Your task to perform on an android device: Go to ESPN.com Image 0: 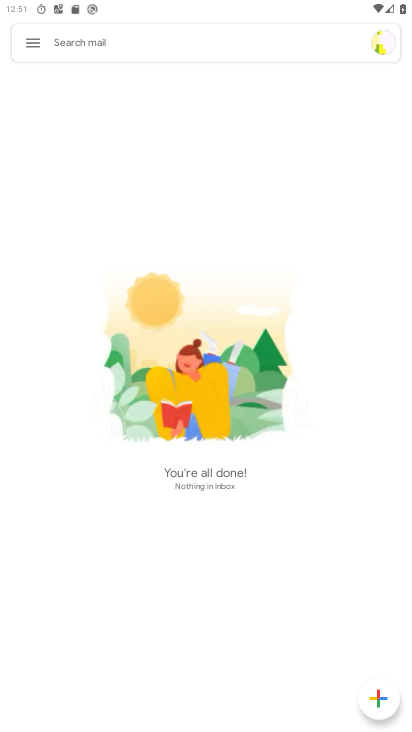
Step 0: press home button
Your task to perform on an android device: Go to ESPN.com Image 1: 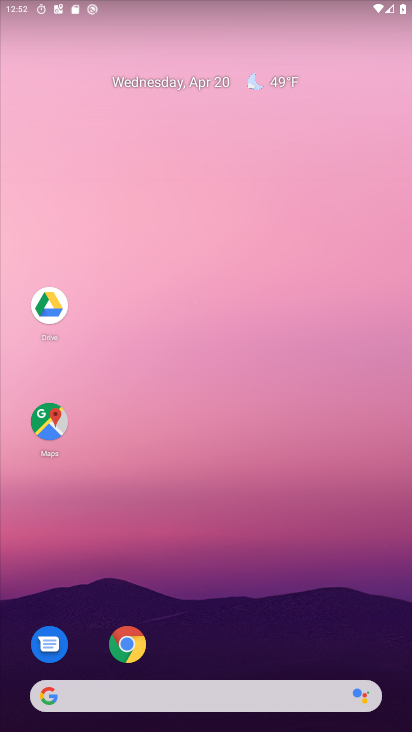
Step 1: click (130, 644)
Your task to perform on an android device: Go to ESPN.com Image 2: 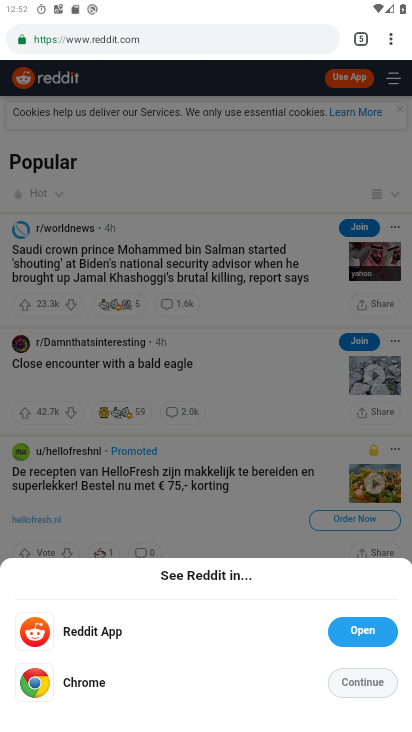
Step 2: click (357, 43)
Your task to perform on an android device: Go to ESPN.com Image 3: 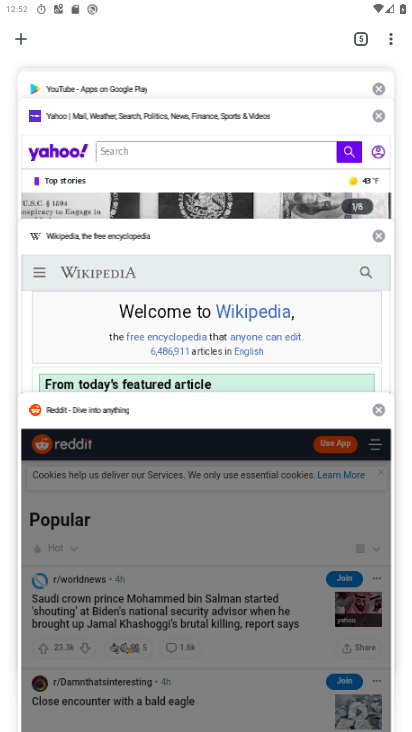
Step 3: click (28, 38)
Your task to perform on an android device: Go to ESPN.com Image 4: 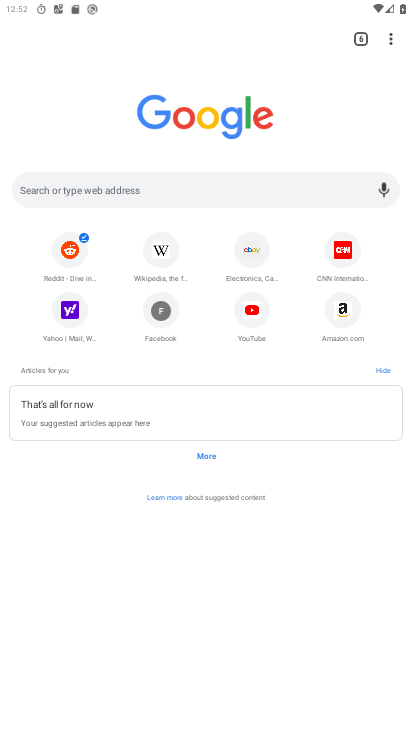
Step 4: click (149, 185)
Your task to perform on an android device: Go to ESPN.com Image 5: 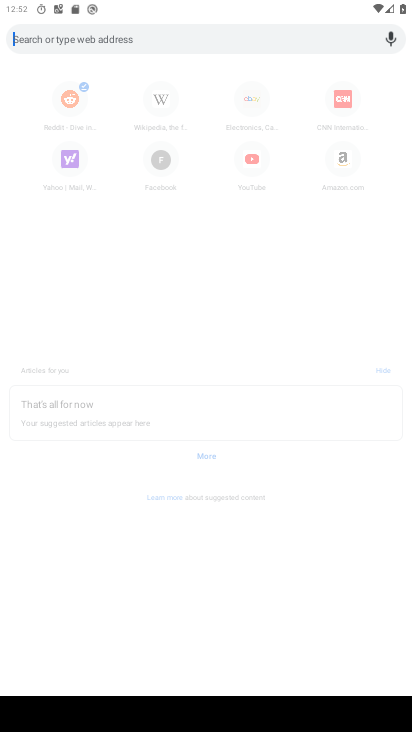
Step 5: type "ESPN.com"
Your task to perform on an android device: Go to ESPN.com Image 6: 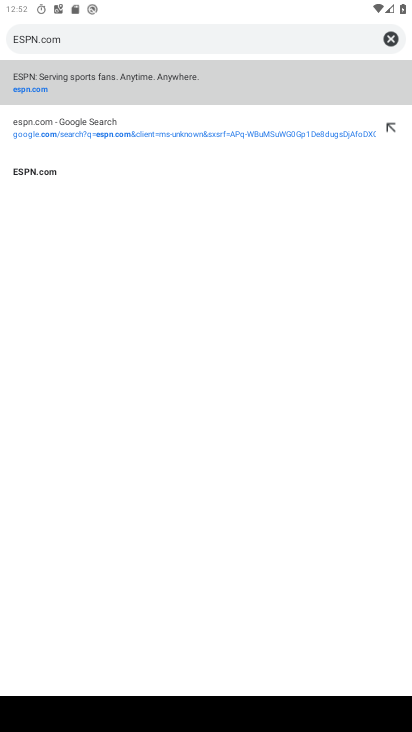
Step 6: click (49, 85)
Your task to perform on an android device: Go to ESPN.com Image 7: 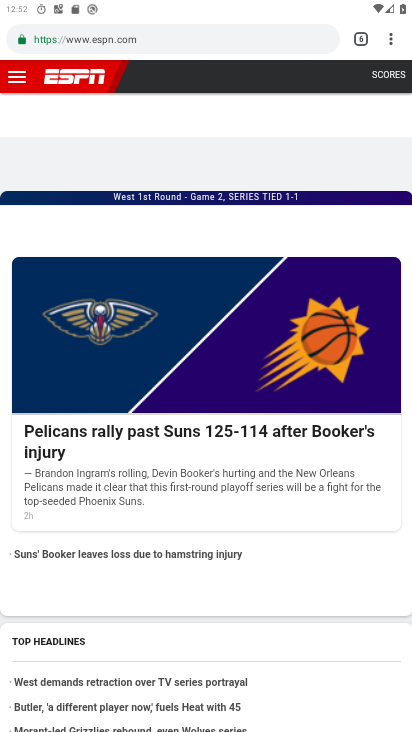
Step 7: task complete